Your task to perform on an android device: Search for pizza restaurants on Maps Image 0: 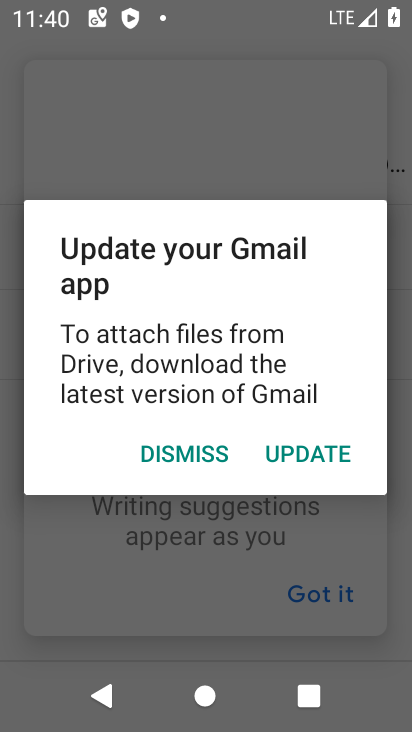
Step 0: press home button
Your task to perform on an android device: Search for pizza restaurants on Maps Image 1: 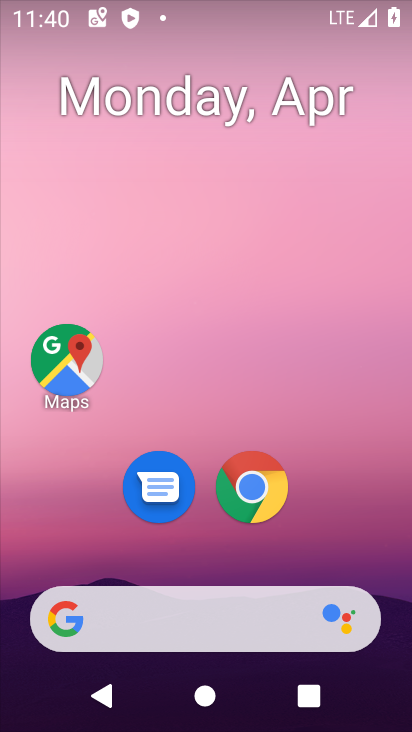
Step 1: drag from (368, 519) to (284, 1)
Your task to perform on an android device: Search for pizza restaurants on Maps Image 2: 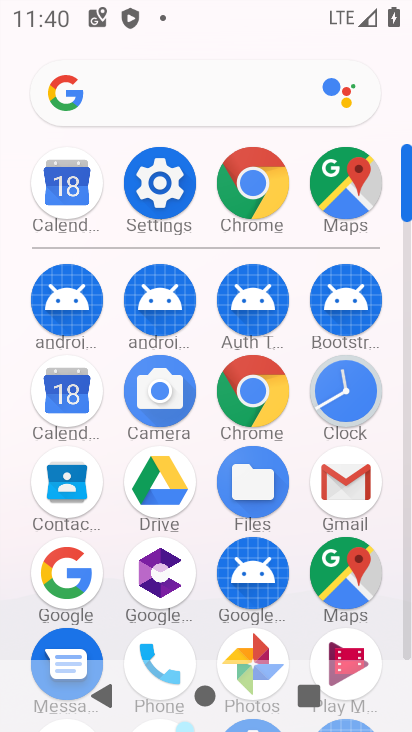
Step 2: click (357, 205)
Your task to perform on an android device: Search for pizza restaurants on Maps Image 3: 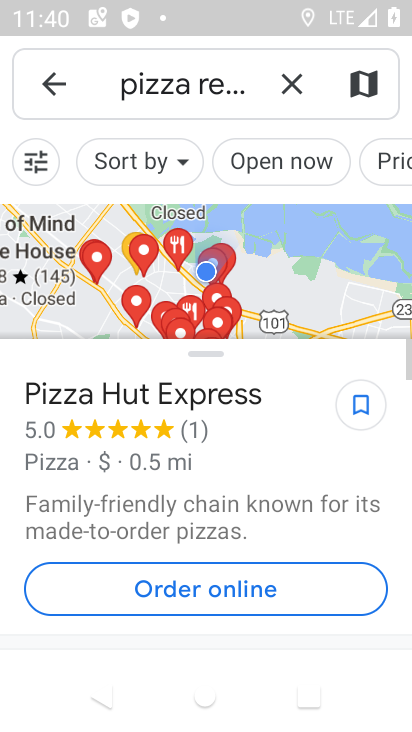
Step 3: task complete